Your task to perform on an android device: open app "Spotify" (install if not already installed) and go to login screen Image 0: 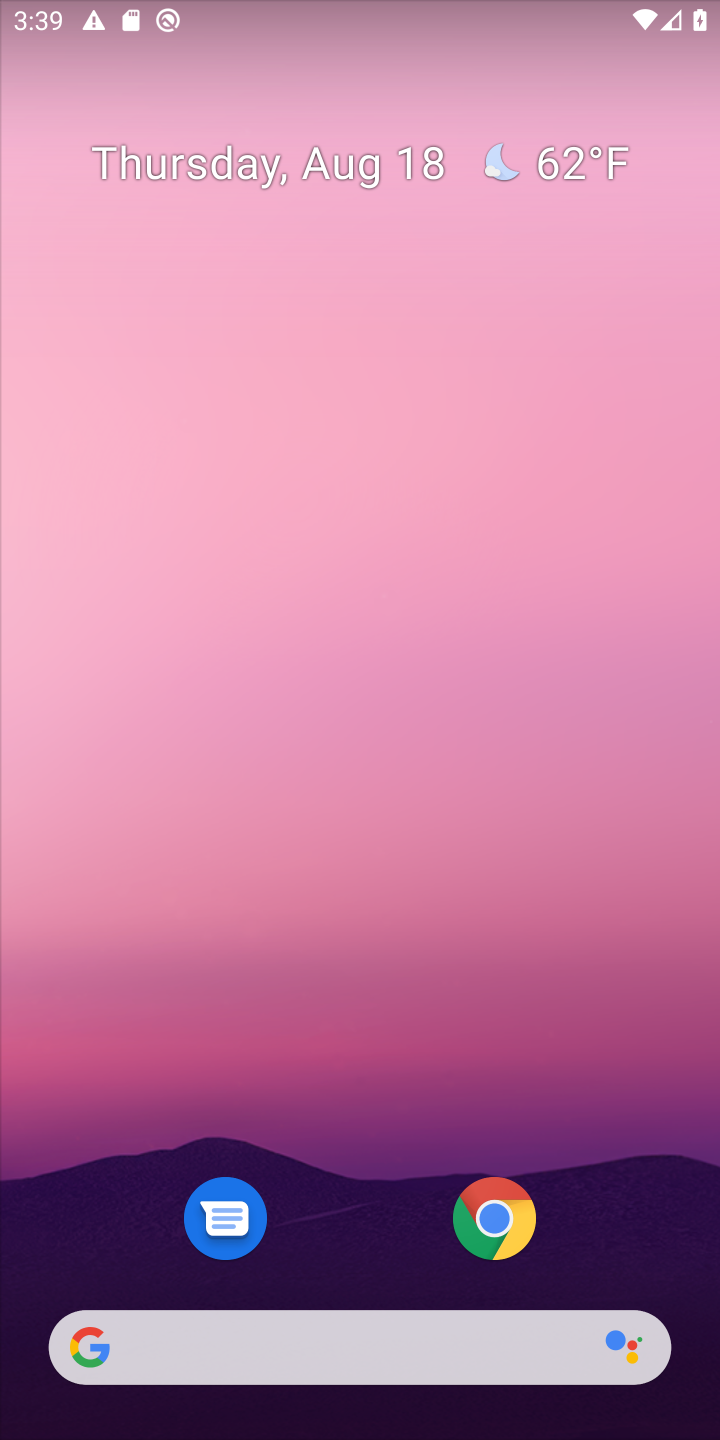
Step 0: drag from (320, 957) to (309, 443)
Your task to perform on an android device: open app "Spotify" (install if not already installed) and go to login screen Image 1: 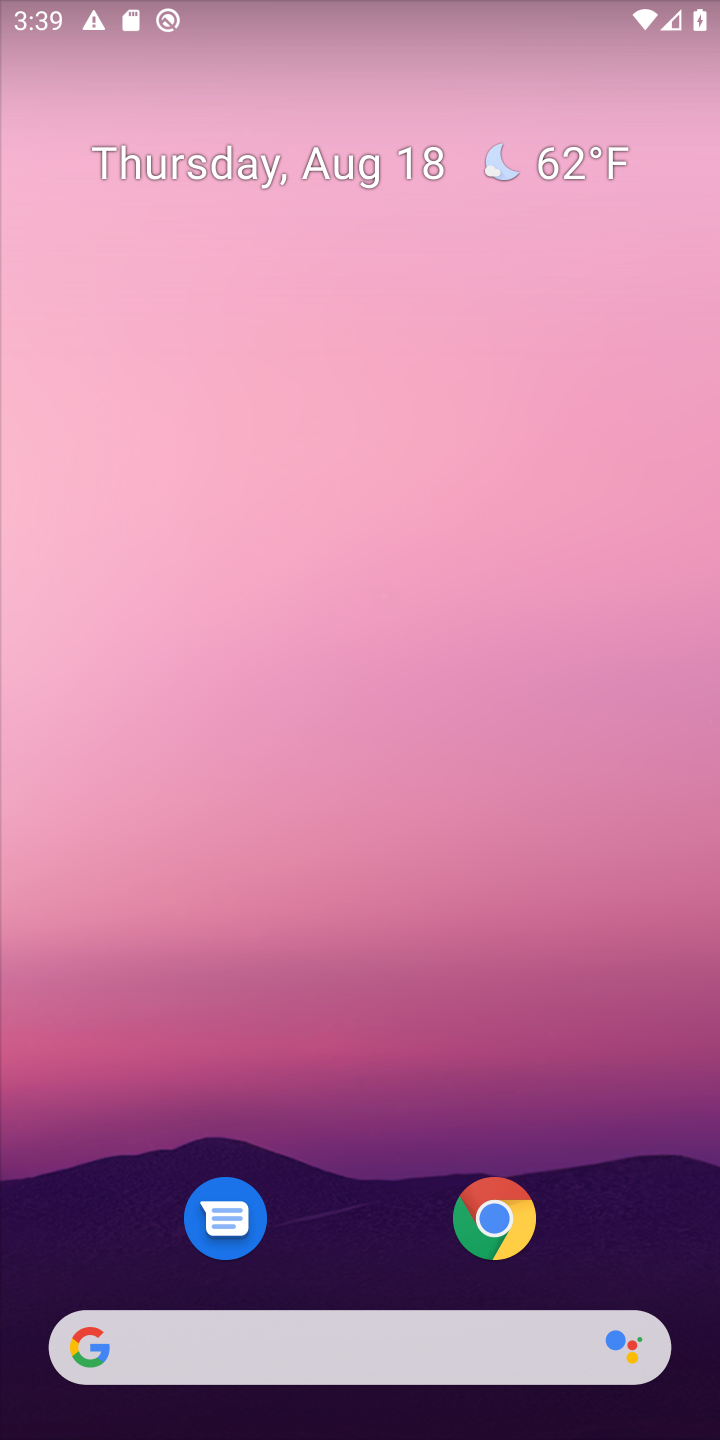
Step 1: drag from (338, 939) to (357, 363)
Your task to perform on an android device: open app "Spotify" (install if not already installed) and go to login screen Image 2: 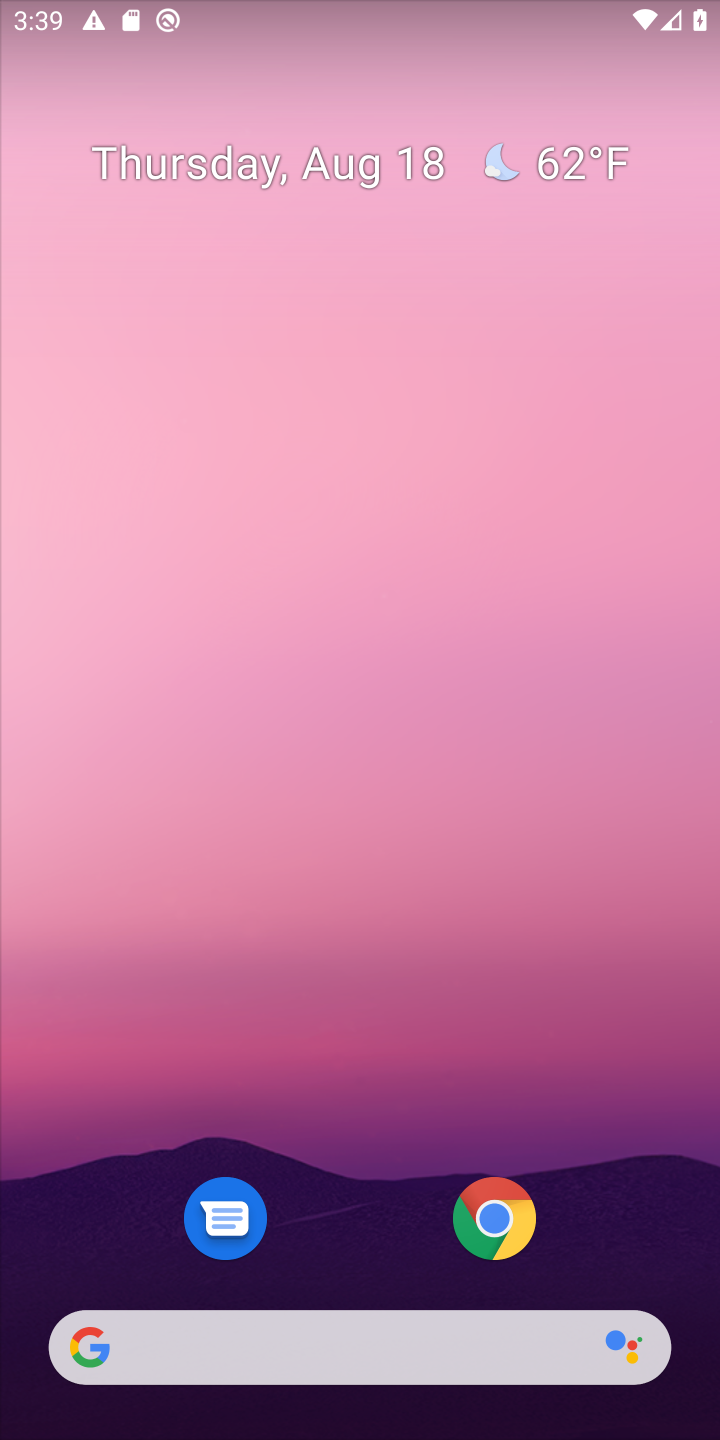
Step 2: drag from (358, 1161) to (334, 349)
Your task to perform on an android device: open app "Spotify" (install if not already installed) and go to login screen Image 3: 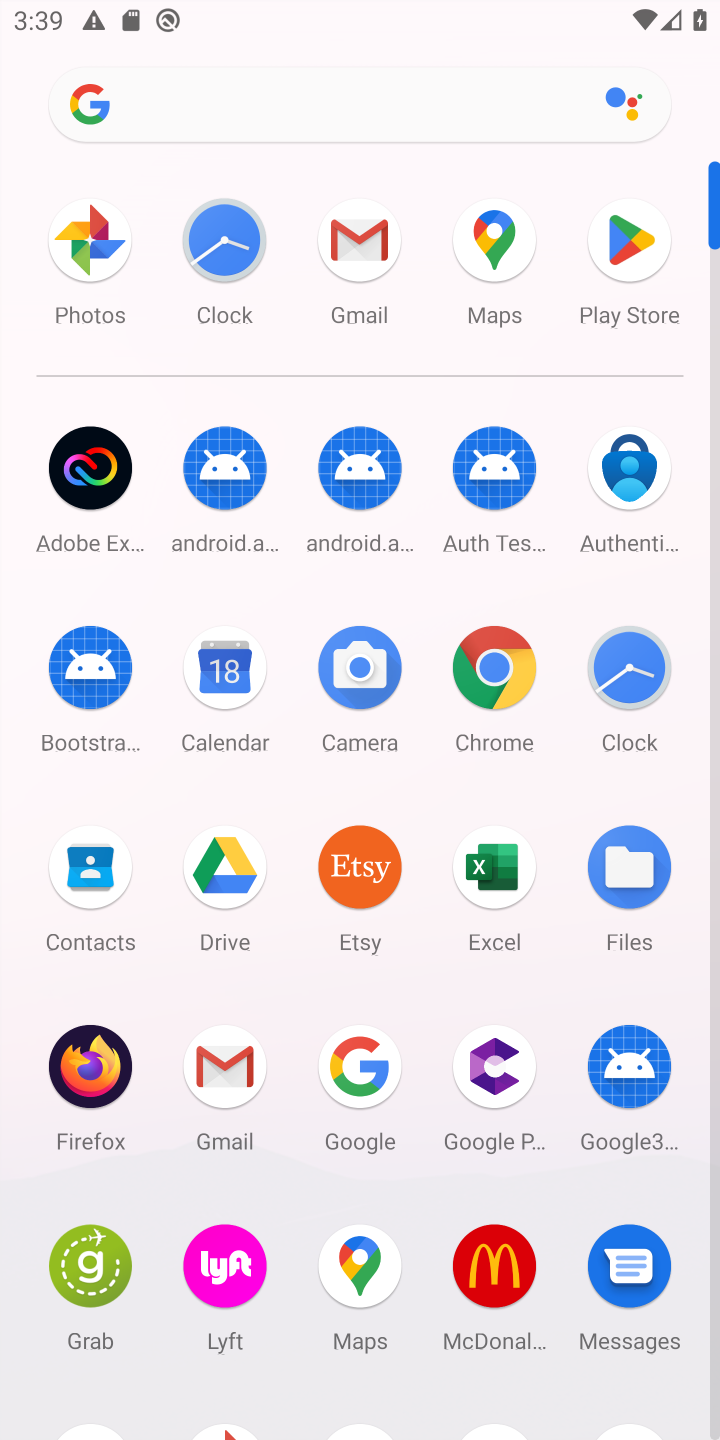
Step 3: click (600, 250)
Your task to perform on an android device: open app "Spotify" (install if not already installed) and go to login screen Image 4: 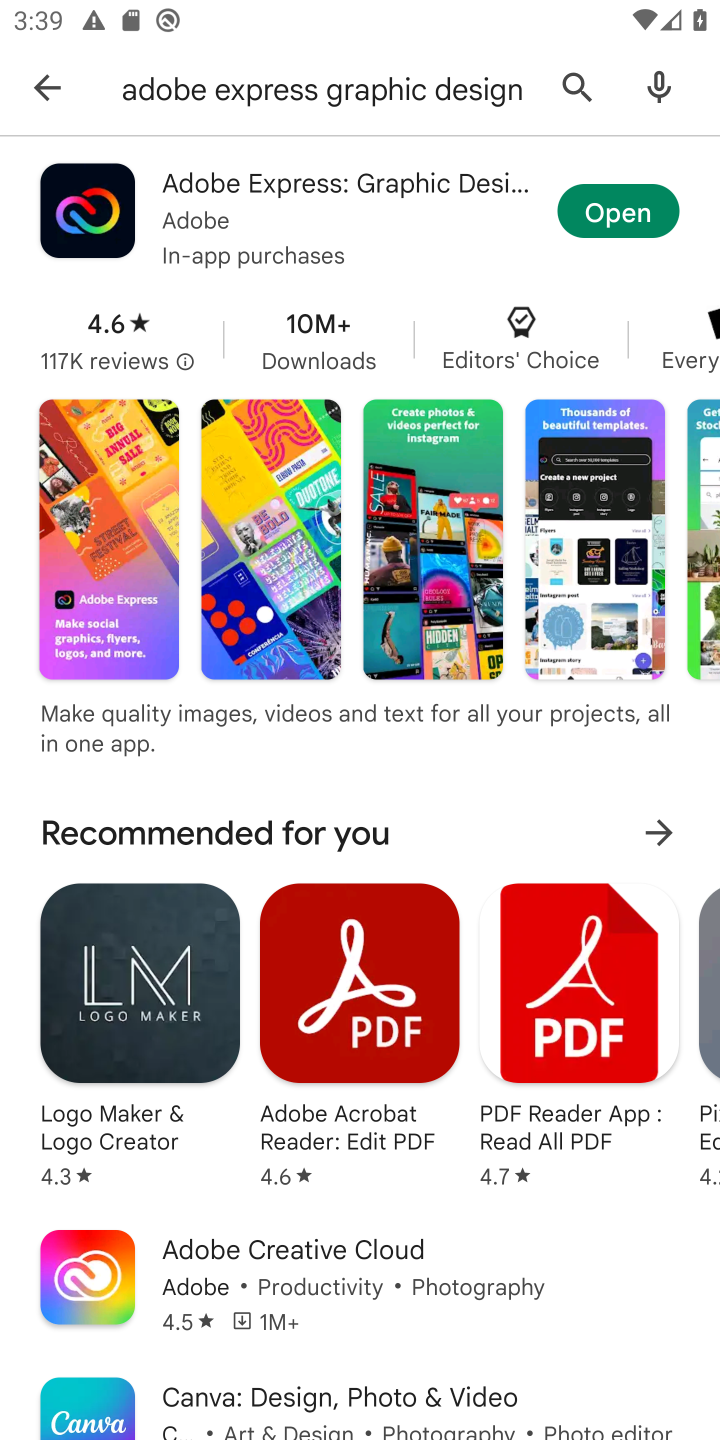
Step 4: click (576, 75)
Your task to perform on an android device: open app "Spotify" (install if not already installed) and go to login screen Image 5: 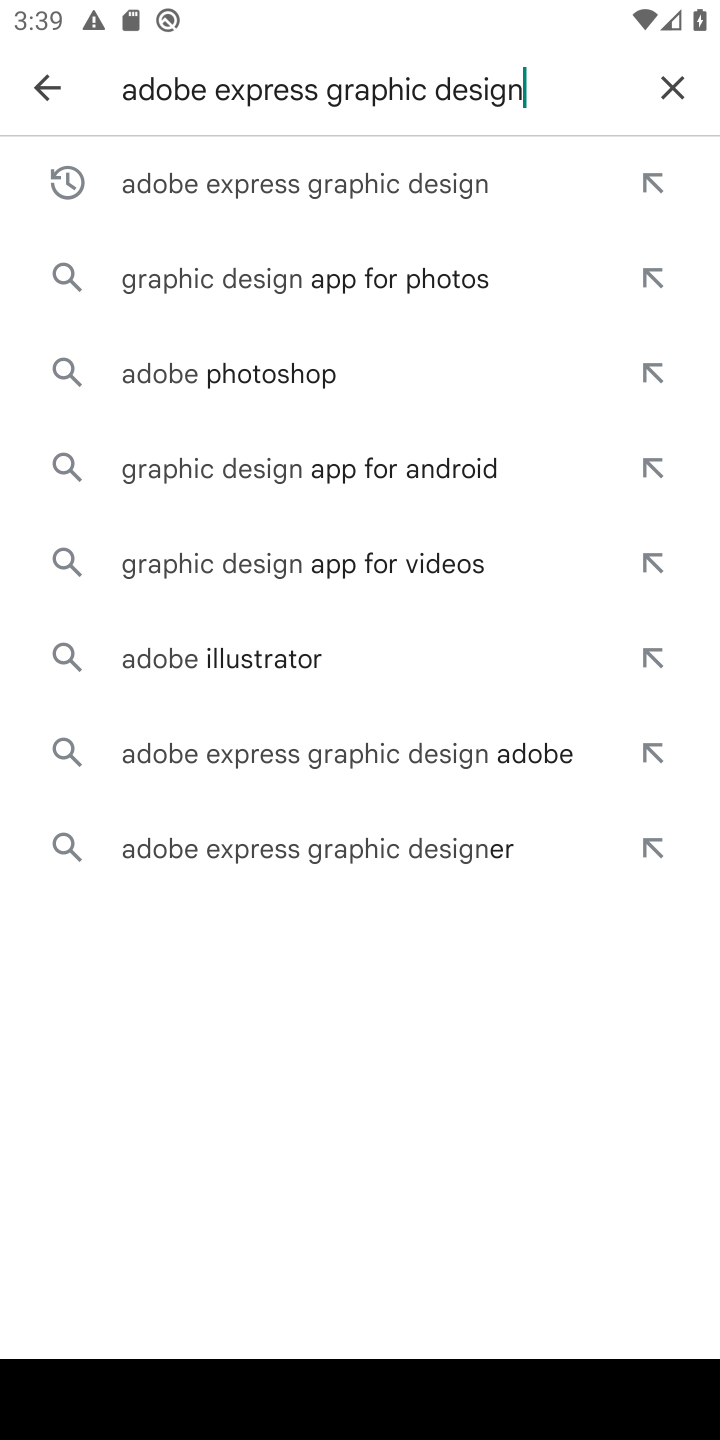
Step 5: click (654, 78)
Your task to perform on an android device: open app "Spotify" (install if not already installed) and go to login screen Image 6: 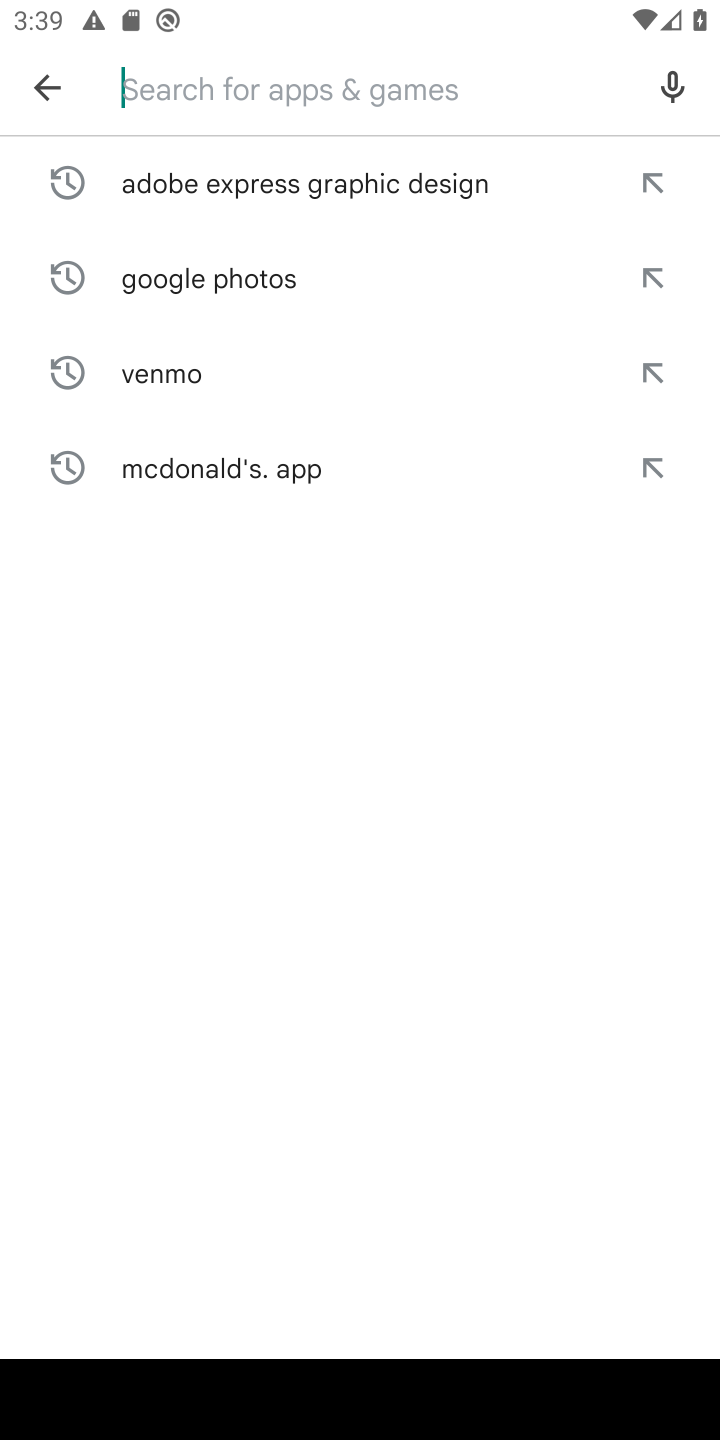
Step 6: type "Spotify"
Your task to perform on an android device: open app "Spotify" (install if not already installed) and go to login screen Image 7: 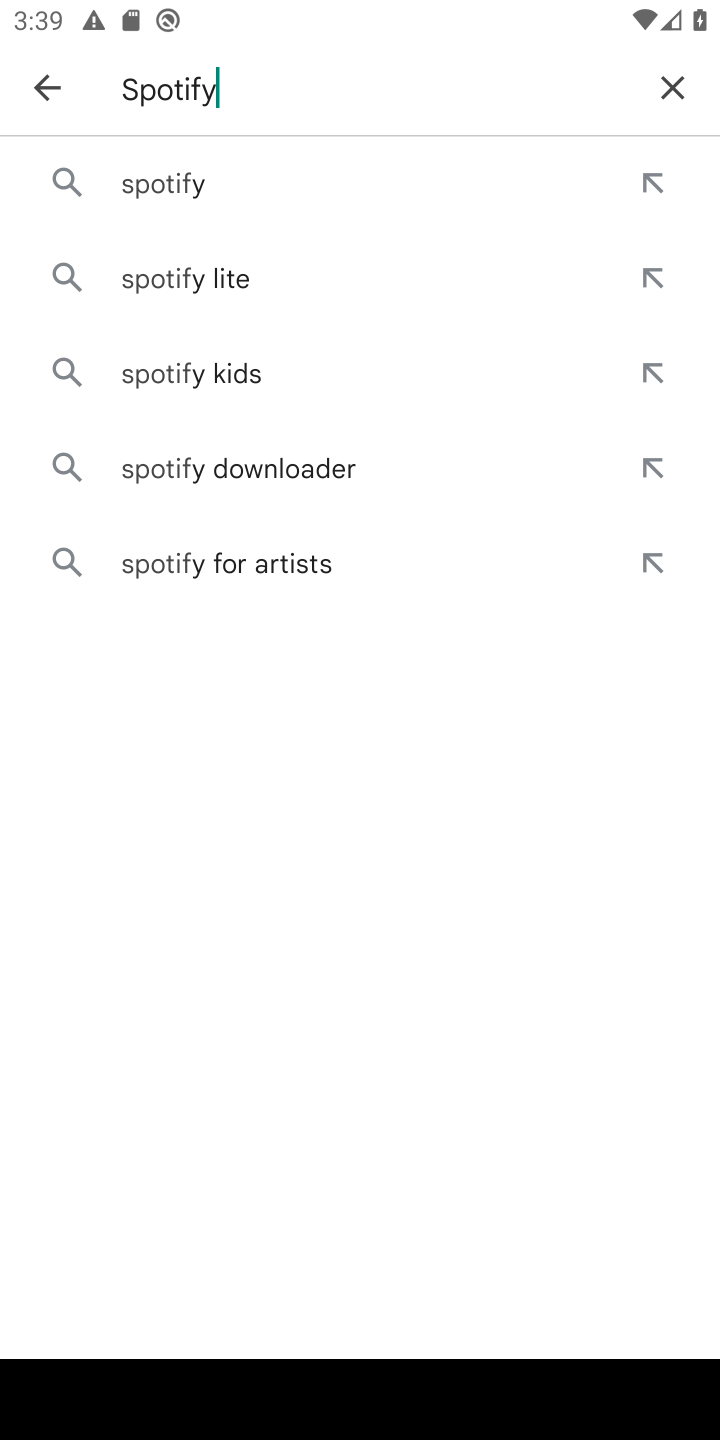
Step 7: type ""
Your task to perform on an android device: open app "Spotify" (install if not already installed) and go to login screen Image 8: 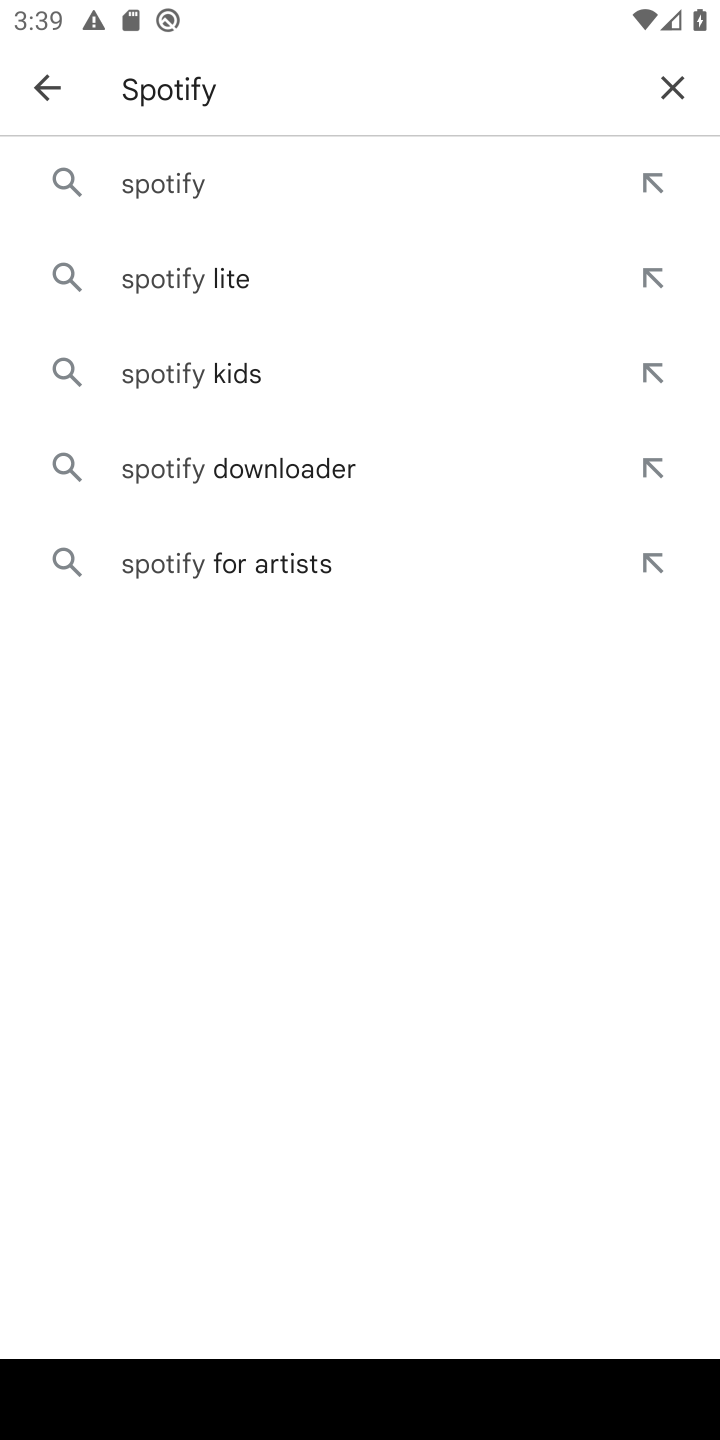
Step 8: click (311, 168)
Your task to perform on an android device: open app "Spotify" (install if not already installed) and go to login screen Image 9: 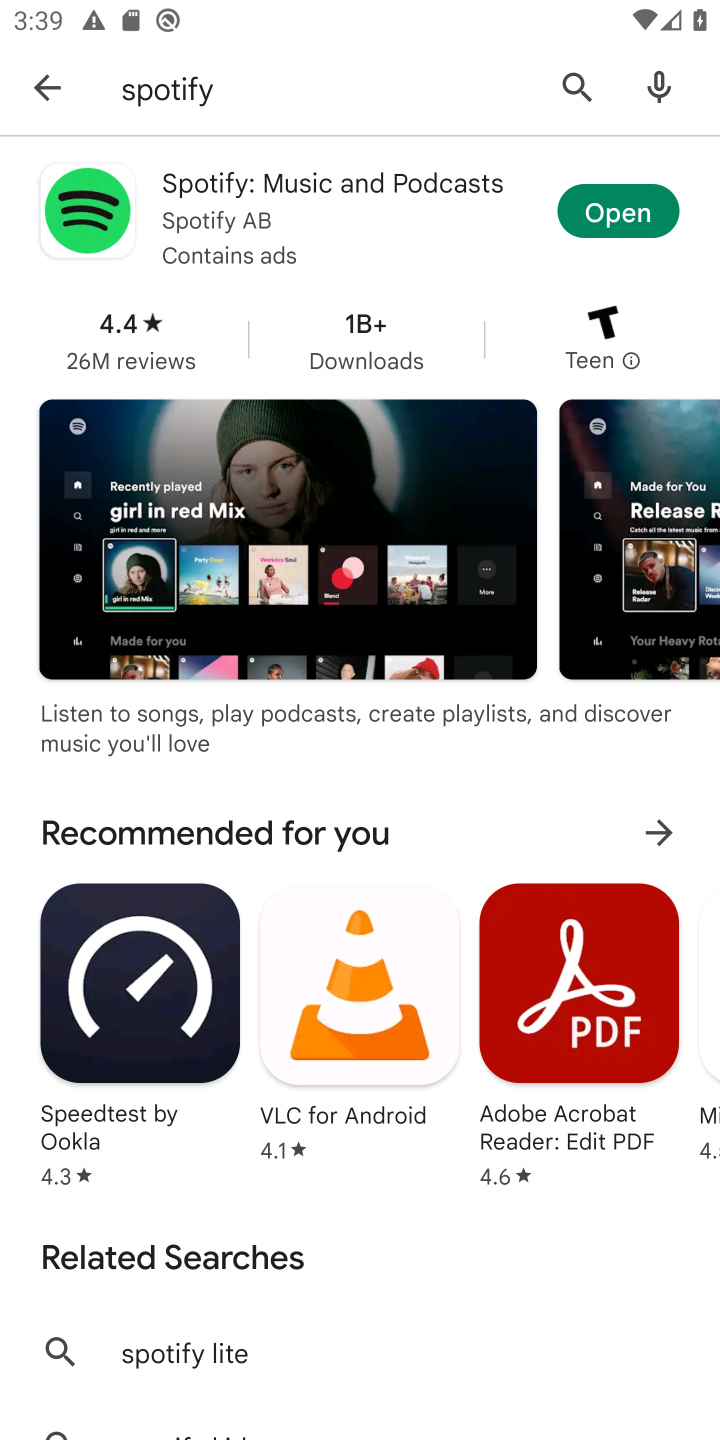
Step 9: click (652, 218)
Your task to perform on an android device: open app "Spotify" (install if not already installed) and go to login screen Image 10: 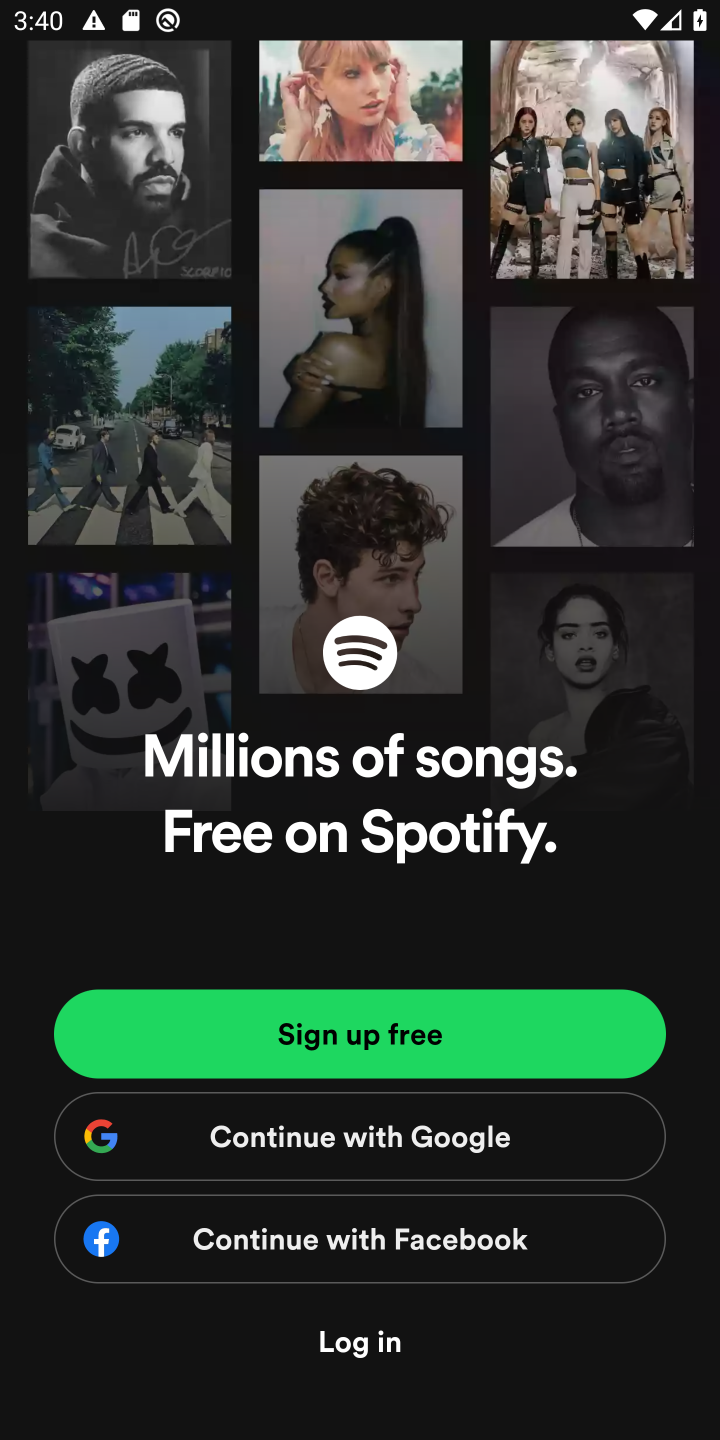
Step 10: task complete